Your task to perform on an android device: Add "amazon basics triple a" to the cart on bestbuy.com, then select checkout. Image 0: 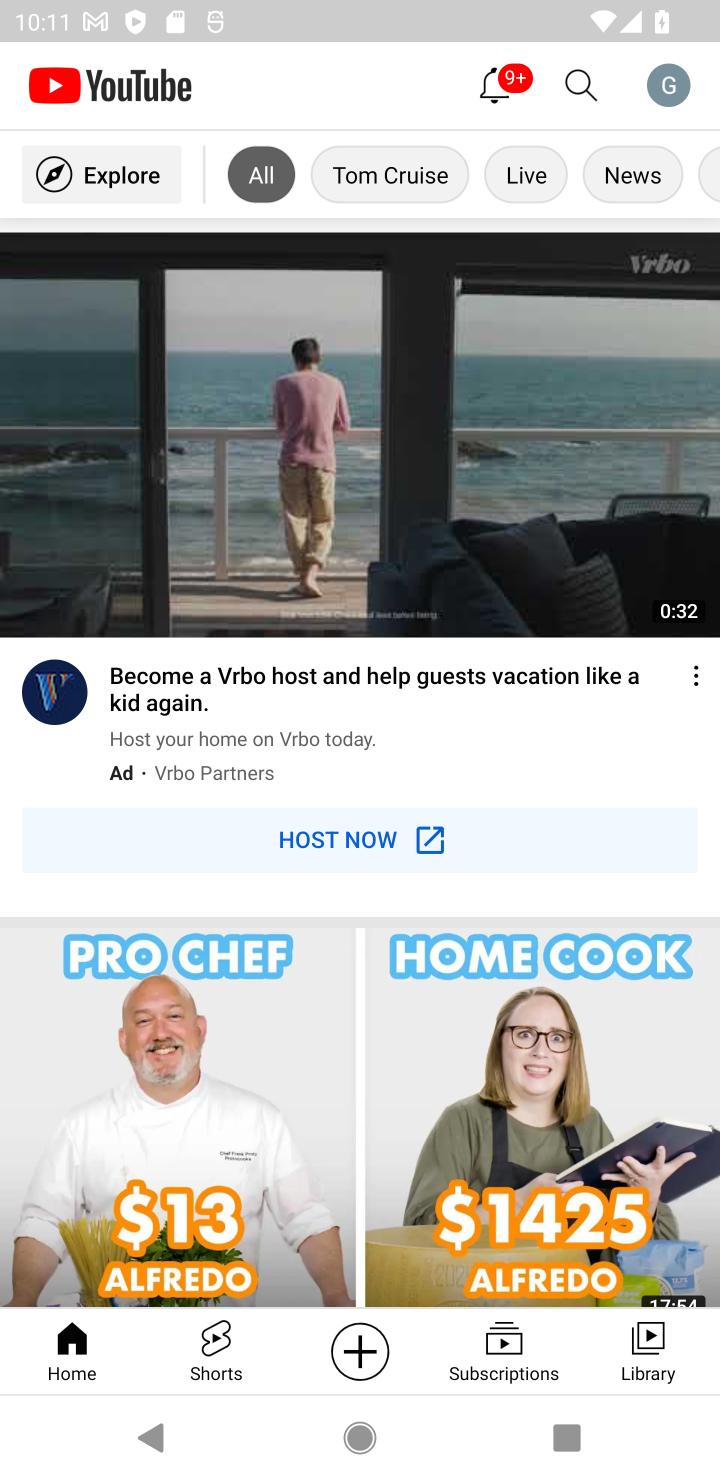
Step 0: press home button
Your task to perform on an android device: Add "amazon basics triple a" to the cart on bestbuy.com, then select checkout. Image 1: 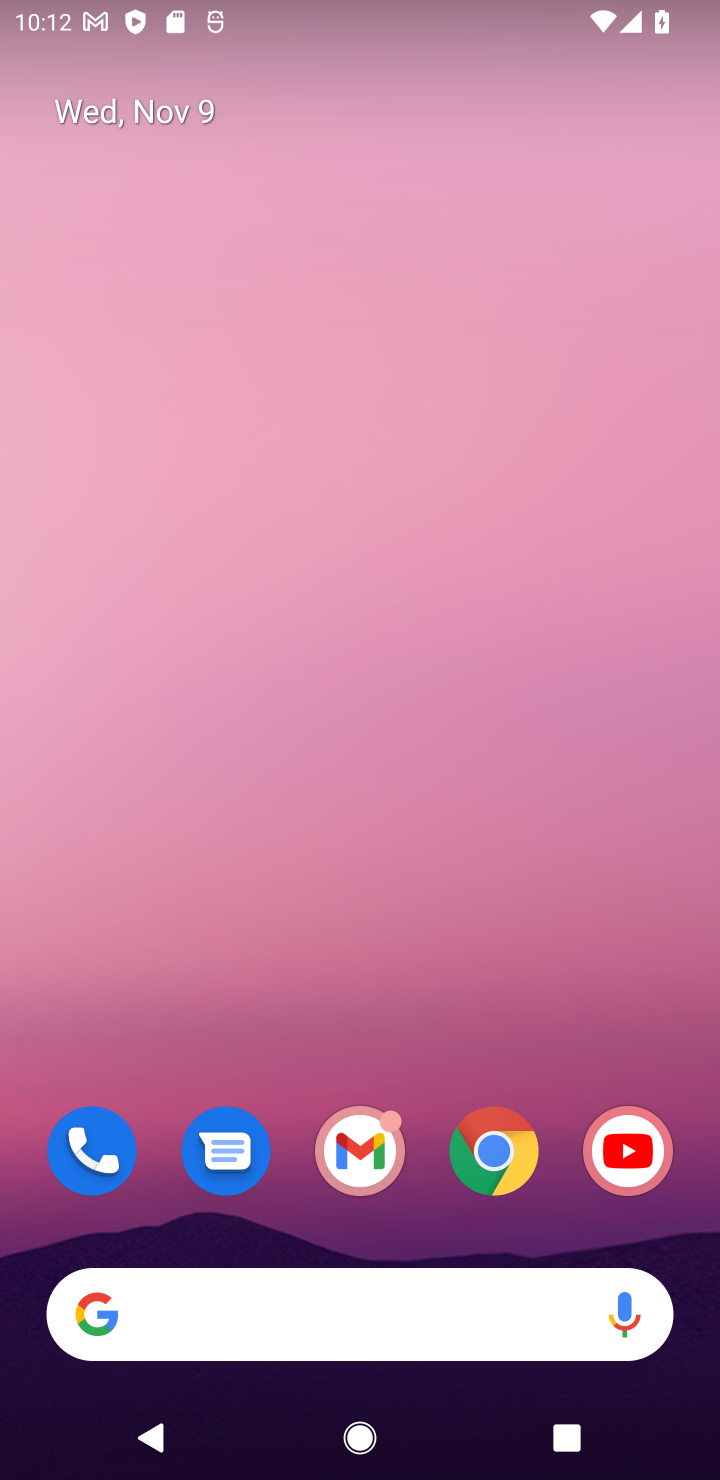
Step 1: click (505, 1152)
Your task to perform on an android device: Add "amazon basics triple a" to the cart on bestbuy.com, then select checkout. Image 2: 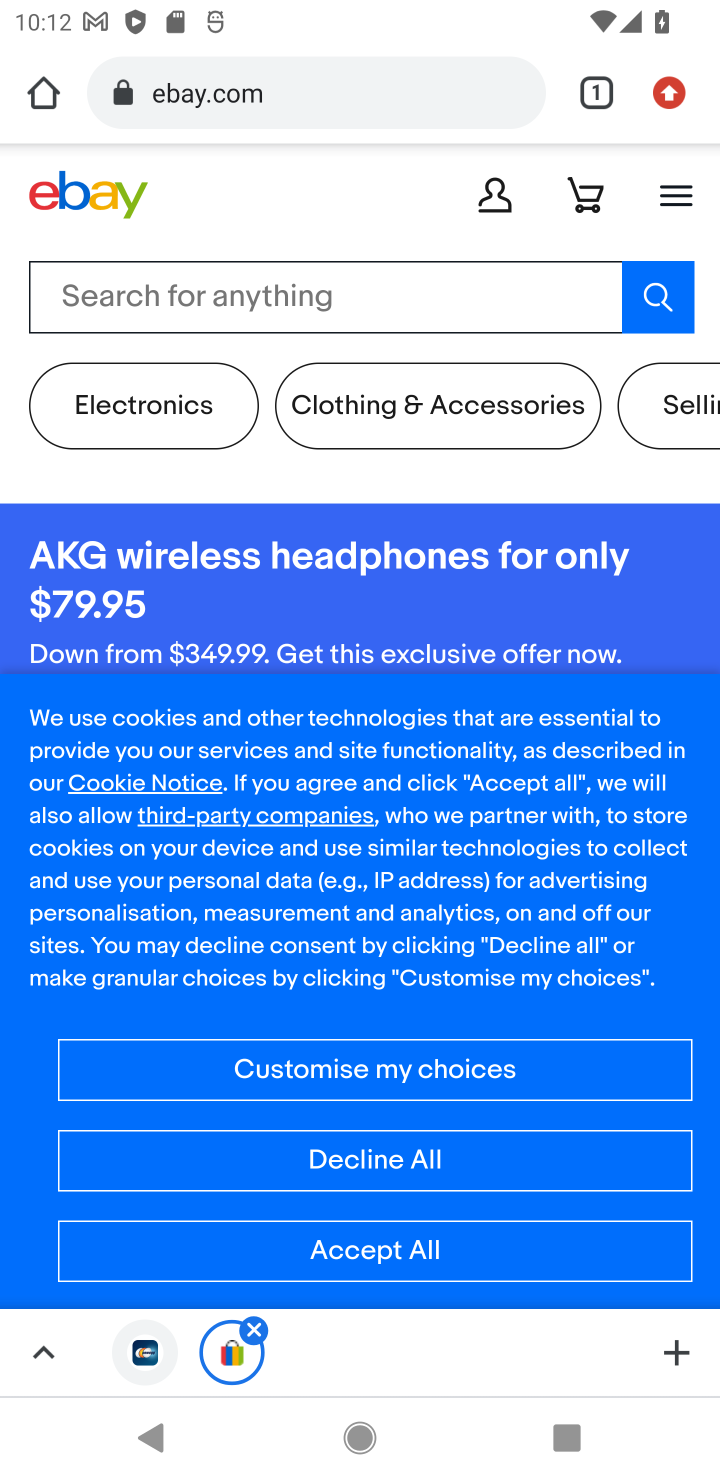
Step 2: click (401, 89)
Your task to perform on an android device: Add "amazon basics triple a" to the cart on bestbuy.com, then select checkout. Image 3: 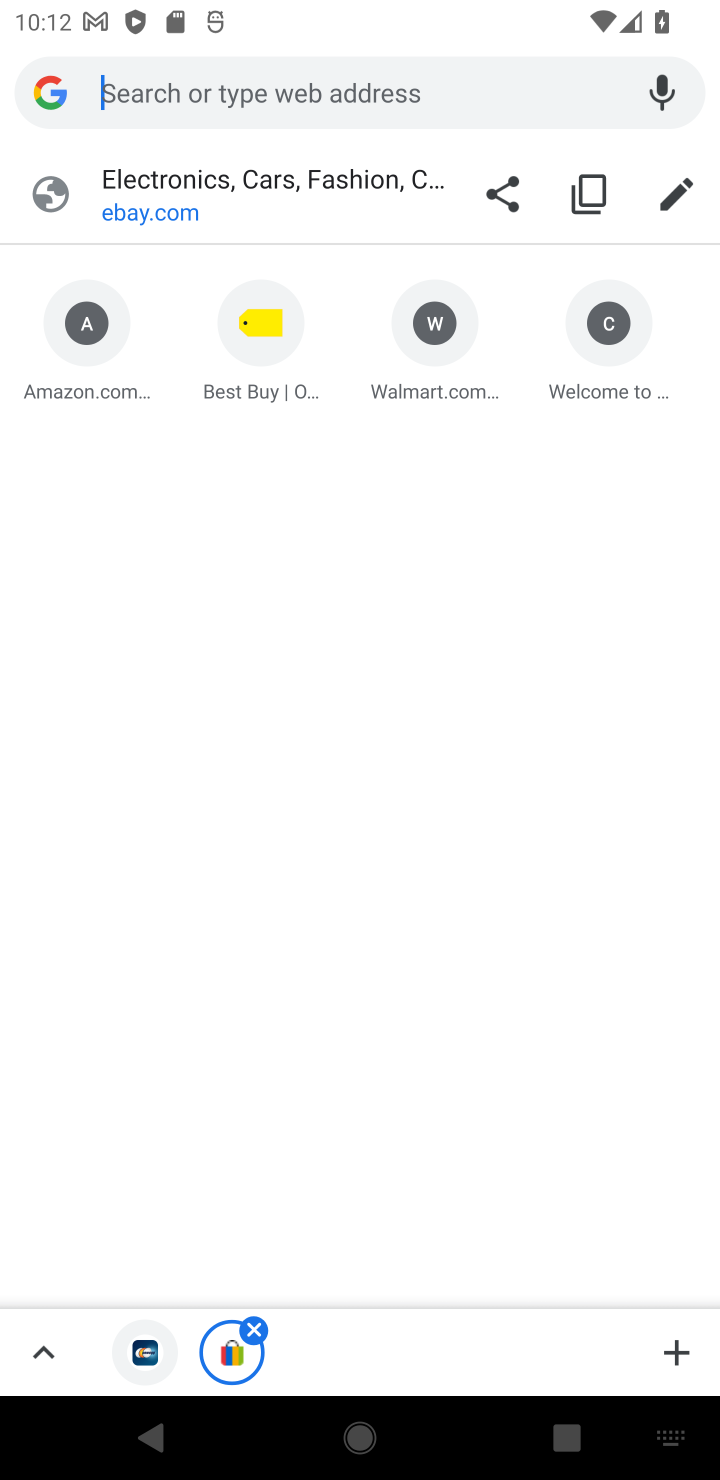
Step 3: press enter
Your task to perform on an android device: Add "amazon basics triple a" to the cart on bestbuy.com, then select checkout. Image 4: 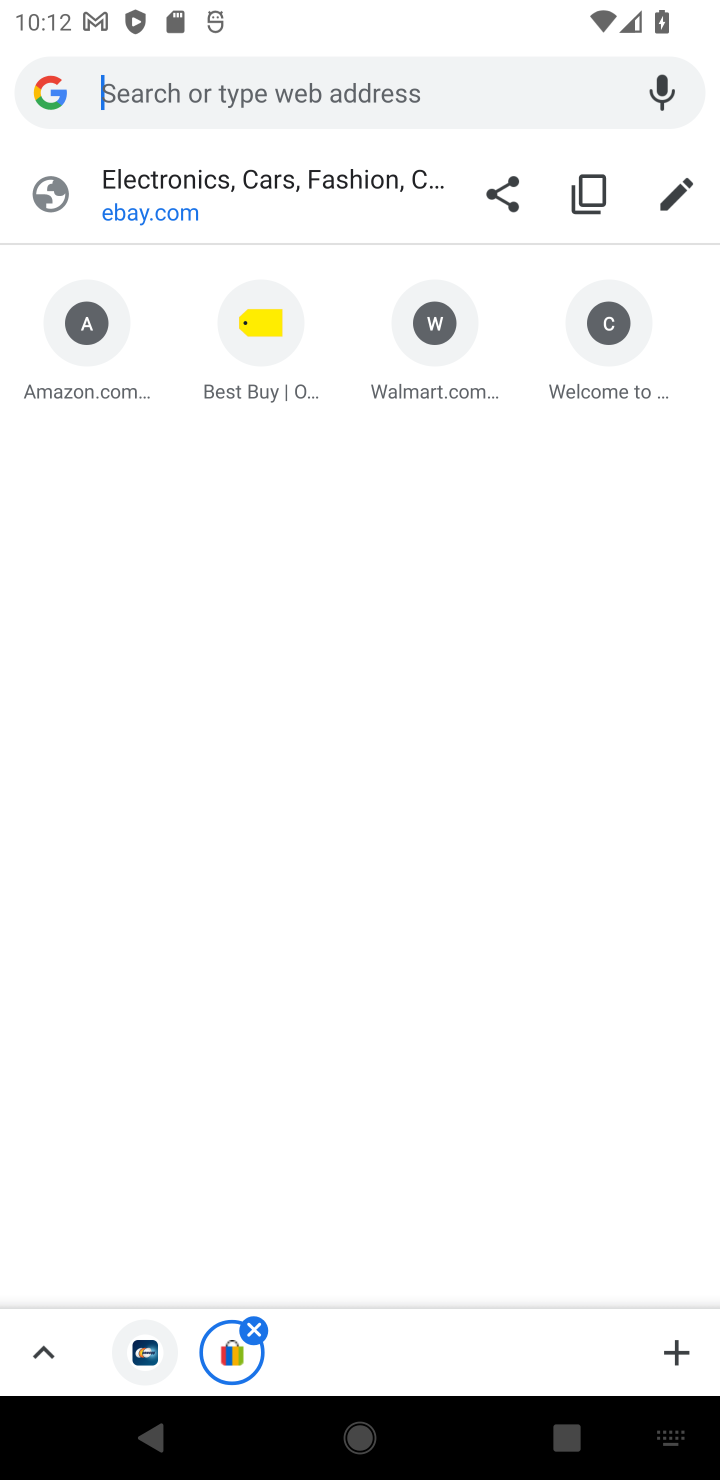
Step 4: type "bestbuy.com"
Your task to perform on an android device: Add "amazon basics triple a" to the cart on bestbuy.com, then select checkout. Image 5: 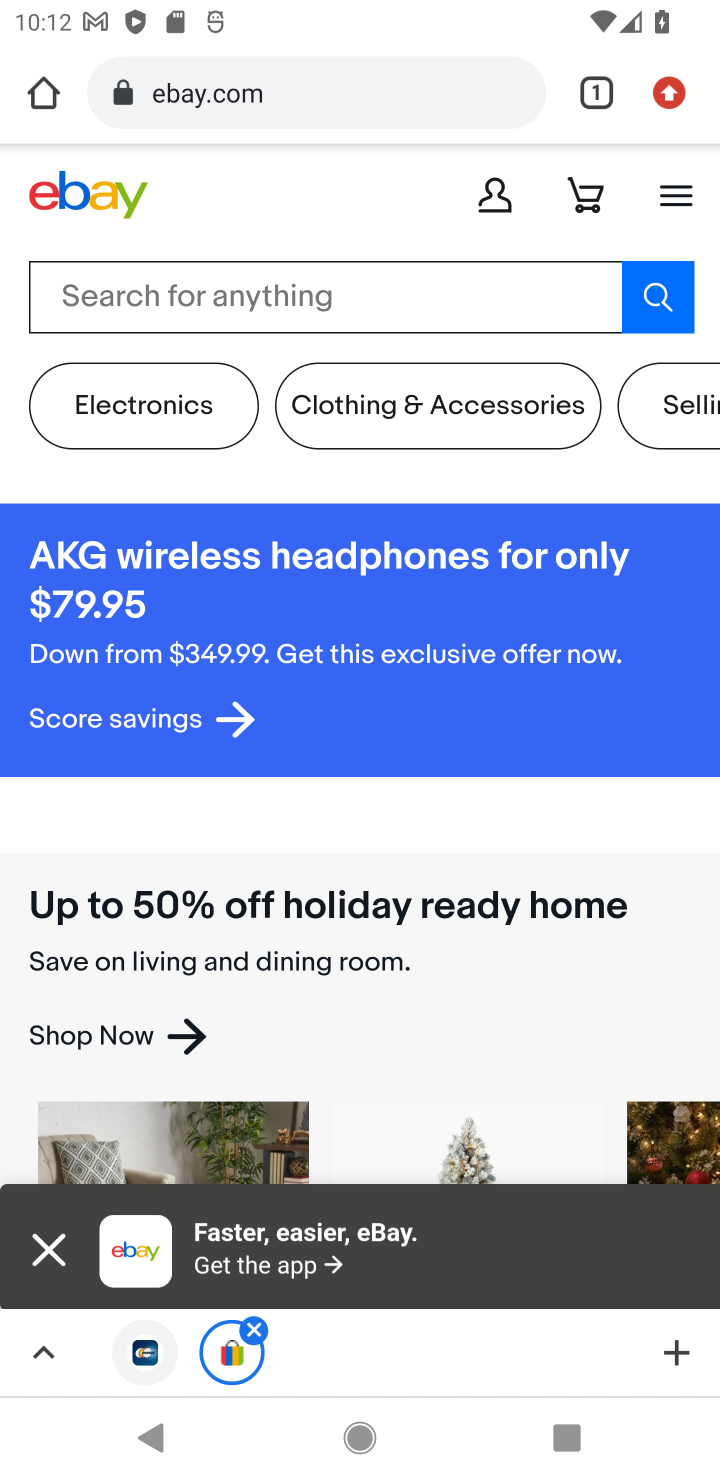
Step 5: click (45, 82)
Your task to perform on an android device: Add "amazon basics triple a" to the cart on bestbuy.com, then select checkout. Image 6: 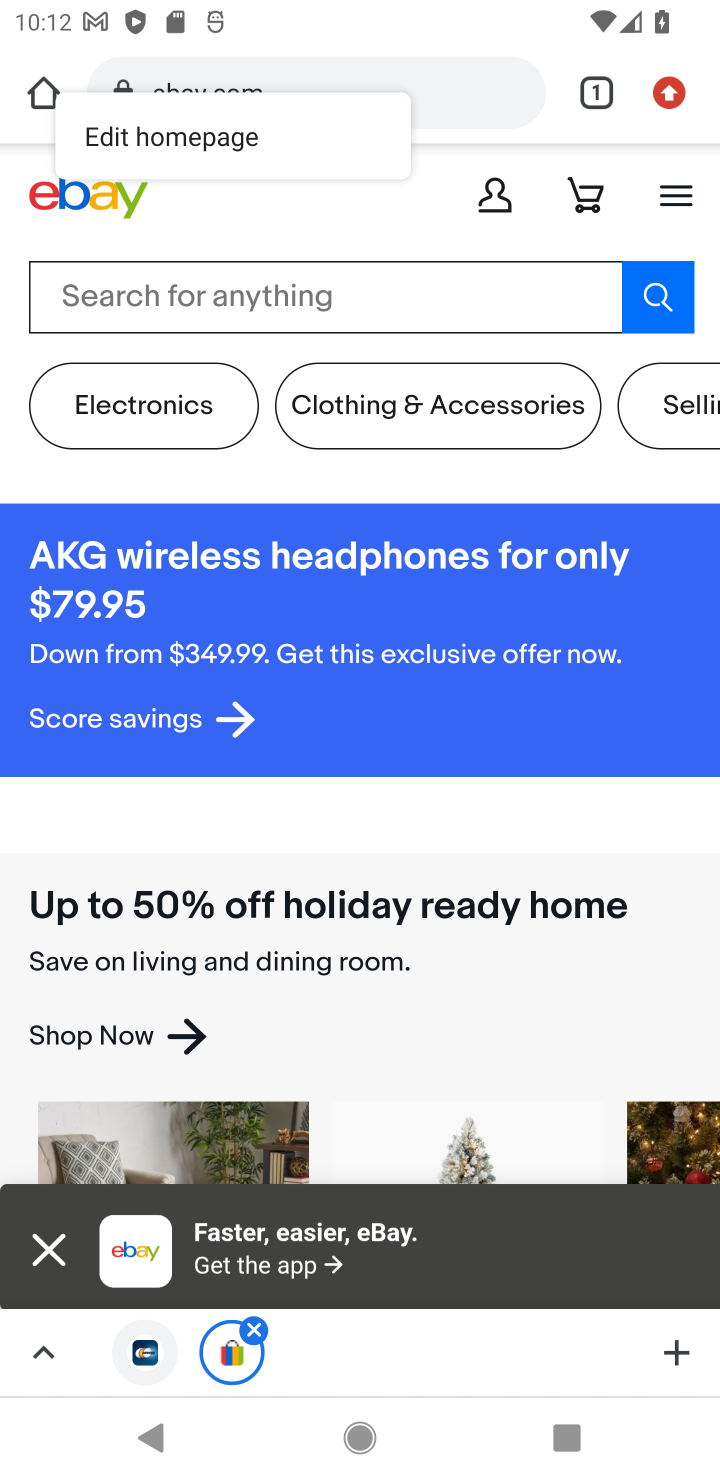
Step 6: click (44, 98)
Your task to perform on an android device: Add "amazon basics triple a" to the cart on bestbuy.com, then select checkout. Image 7: 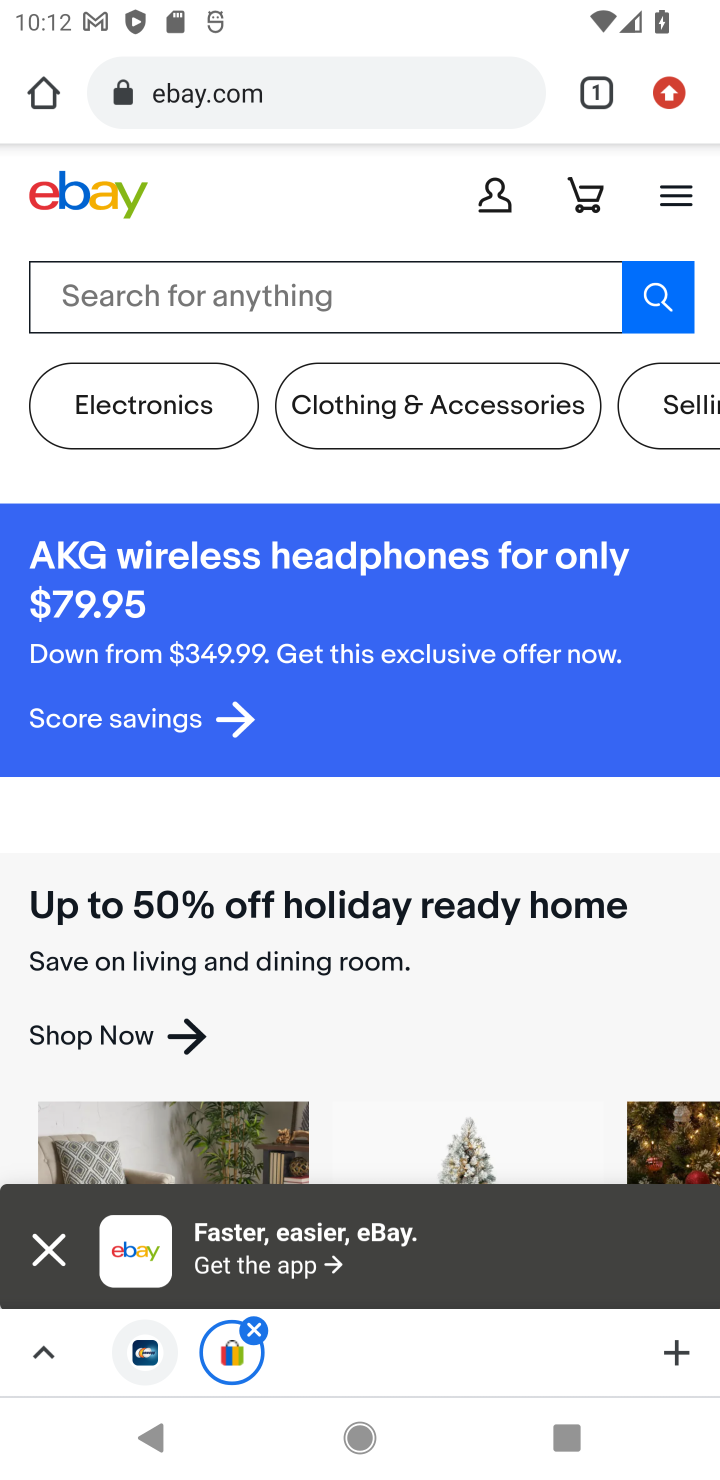
Step 7: click (302, 75)
Your task to perform on an android device: Add "amazon basics triple a" to the cart on bestbuy.com, then select checkout. Image 8: 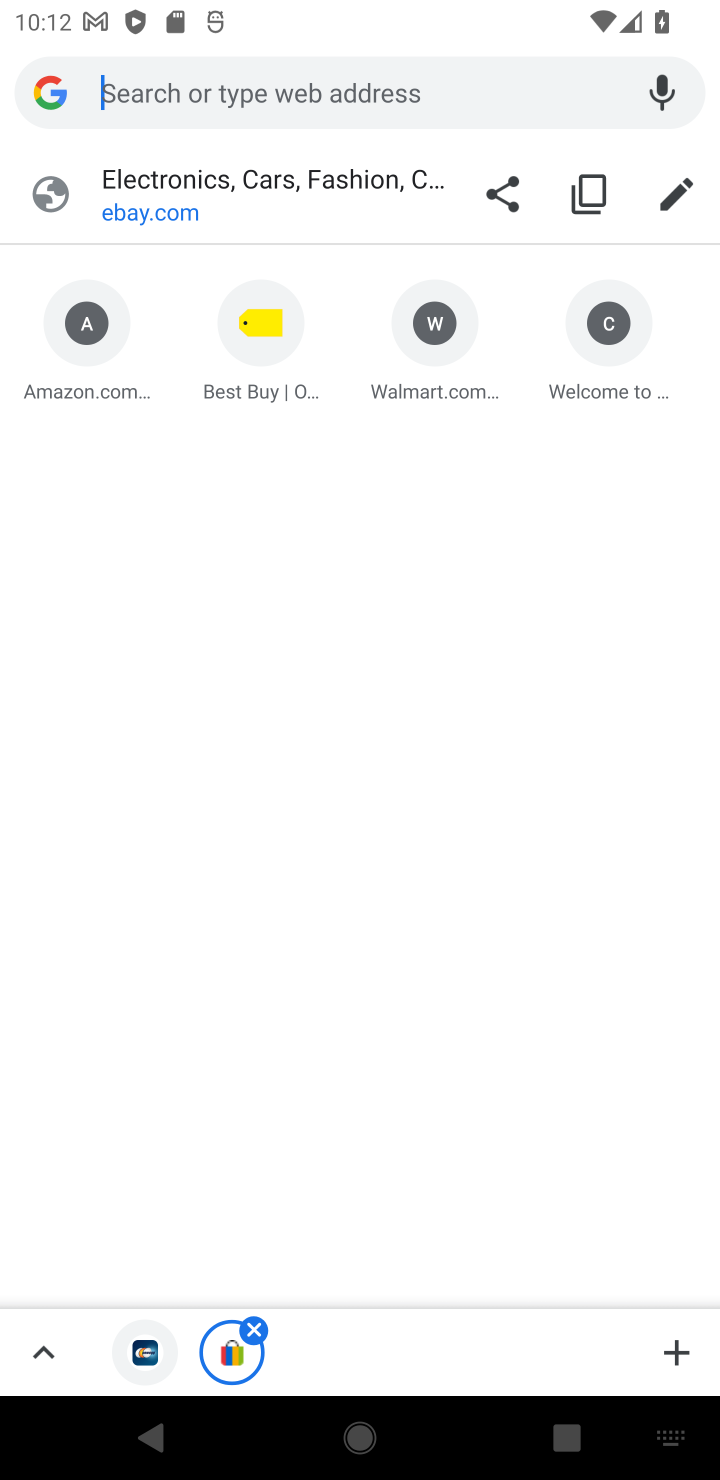
Step 8: type "bestbuy.com"
Your task to perform on an android device: Add "amazon basics triple a" to the cart on bestbuy.com, then select checkout. Image 9: 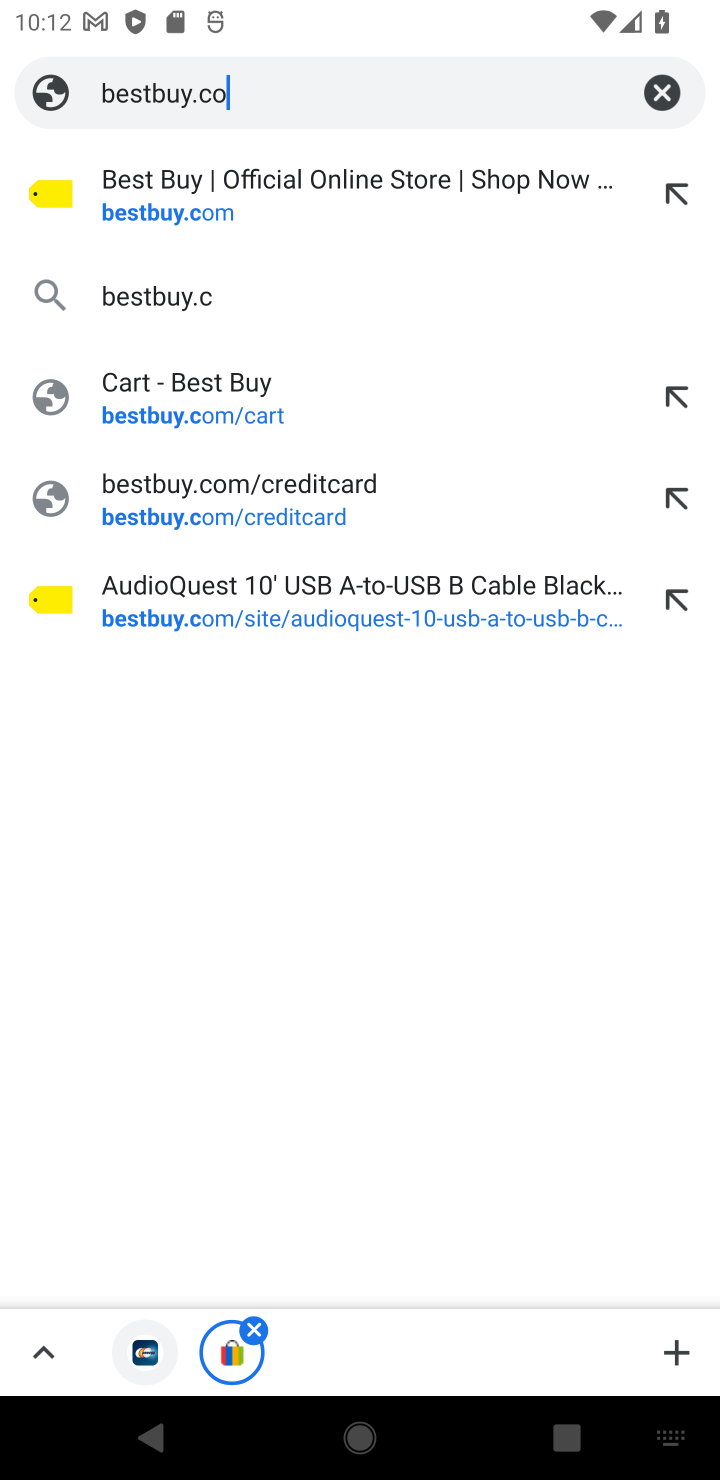
Step 9: press enter
Your task to perform on an android device: Add "amazon basics triple a" to the cart on bestbuy.com, then select checkout. Image 10: 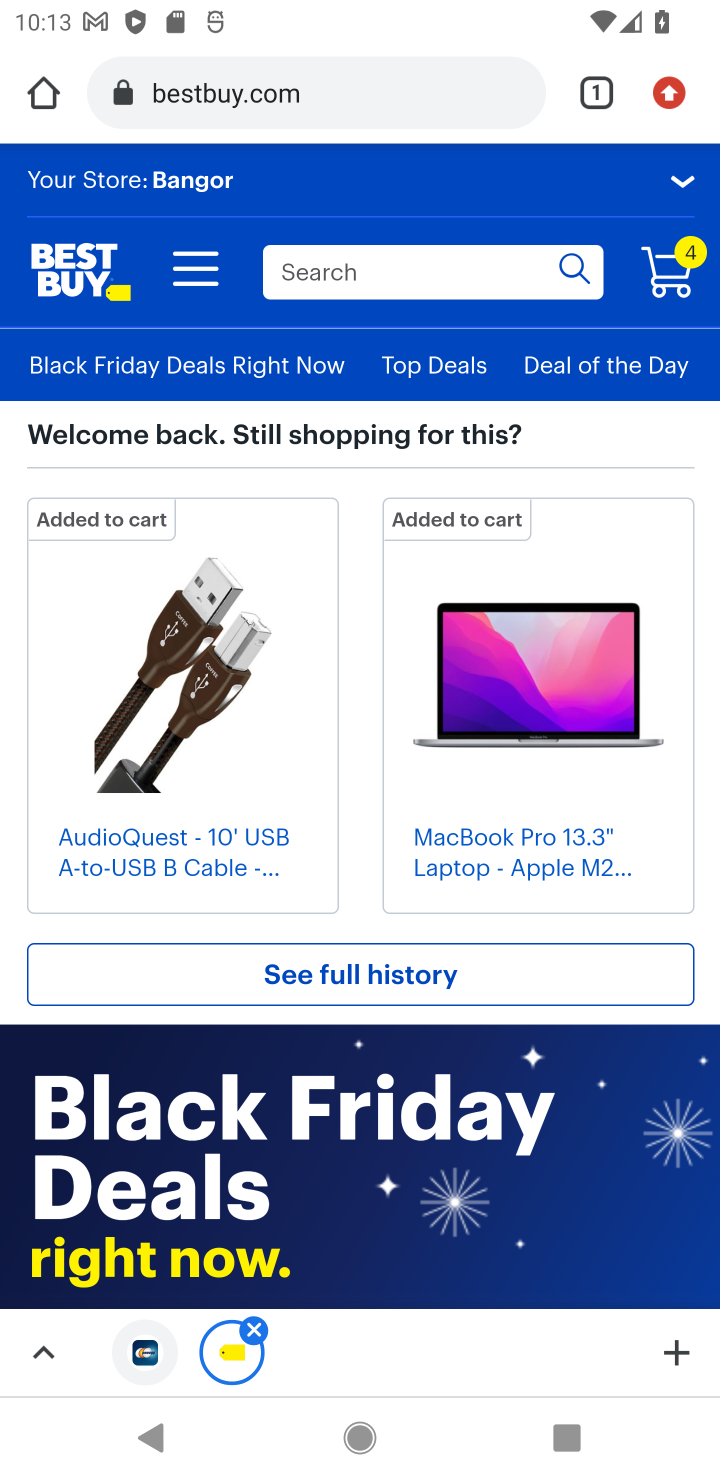
Step 10: click (406, 286)
Your task to perform on an android device: Add "amazon basics triple a" to the cart on bestbuy.com, then select checkout. Image 11: 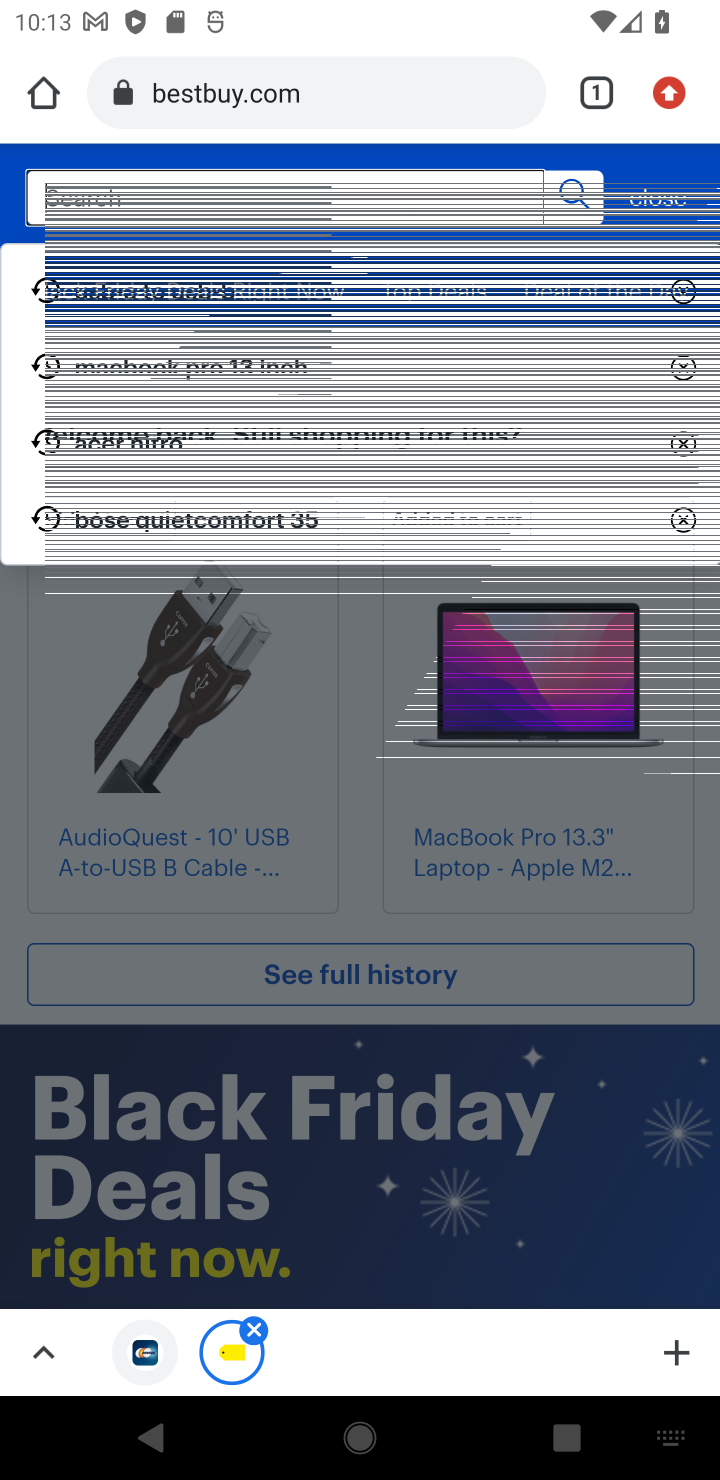
Step 11: press enter
Your task to perform on an android device: Add "amazon basics triple a" to the cart on bestbuy.com, then select checkout. Image 12: 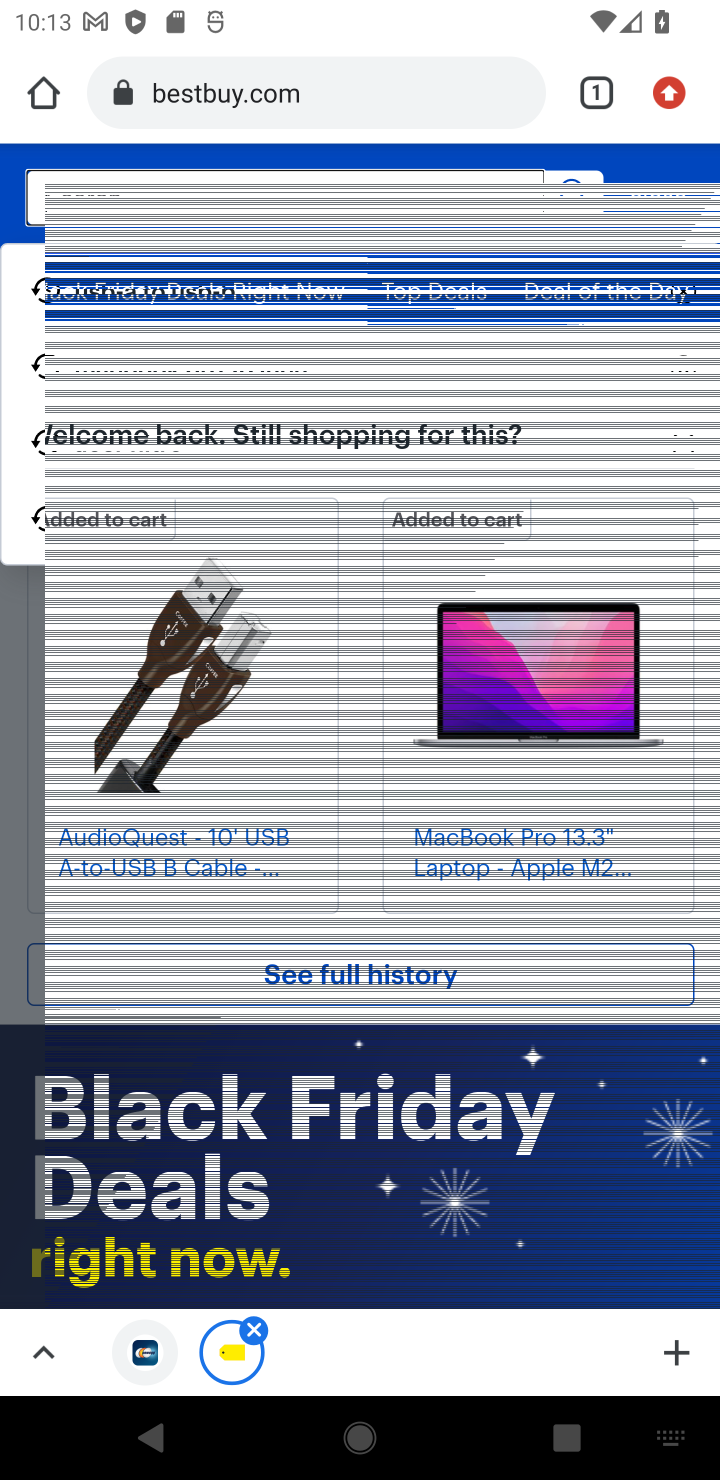
Step 12: type "amazon basics triple a"
Your task to perform on an android device: Add "amazon basics triple a" to the cart on bestbuy.com, then select checkout. Image 13: 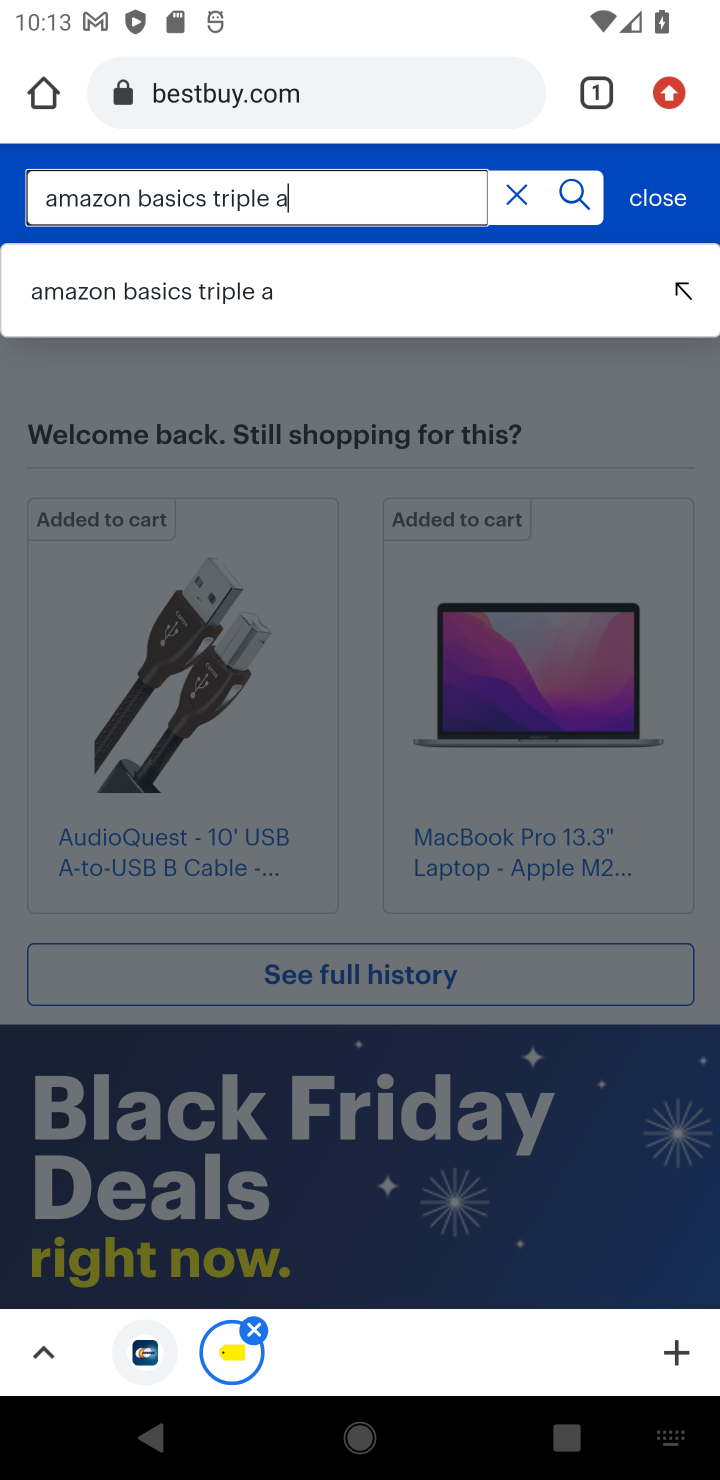
Step 13: click (161, 300)
Your task to perform on an android device: Add "amazon basics triple a" to the cart on bestbuy.com, then select checkout. Image 14: 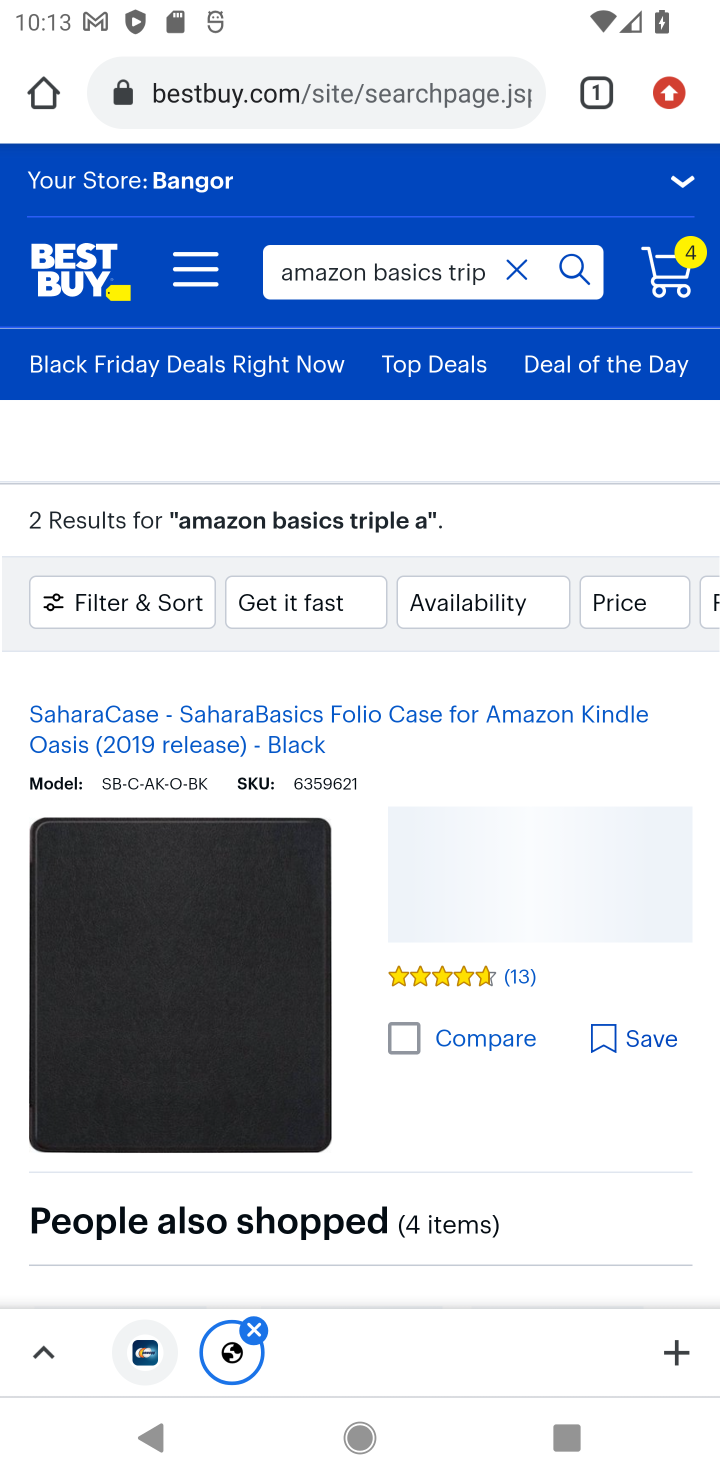
Step 14: task complete